Your task to perform on an android device: check the backup settings in the google photos Image 0: 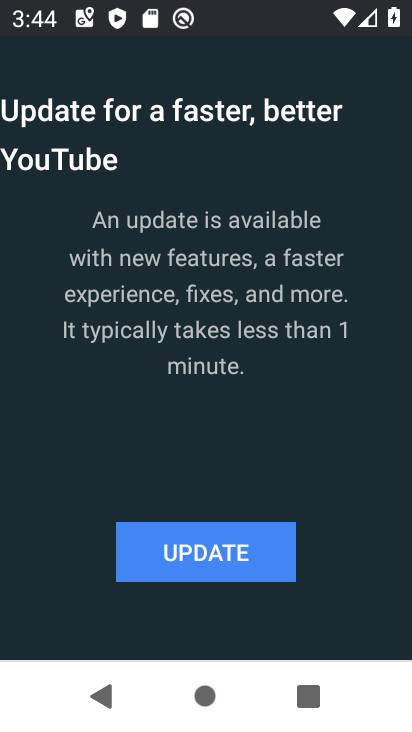
Step 0: press back button
Your task to perform on an android device: check the backup settings in the google photos Image 1: 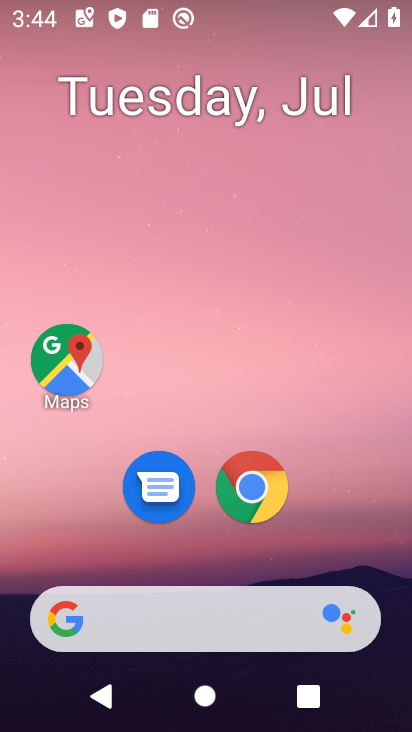
Step 1: drag from (188, 569) to (257, 9)
Your task to perform on an android device: check the backup settings in the google photos Image 2: 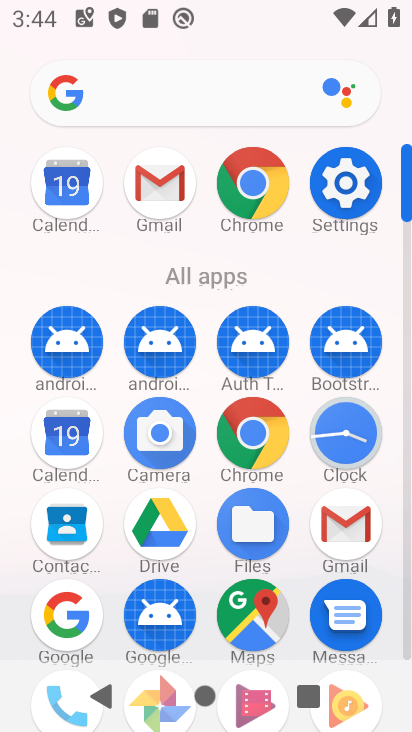
Step 2: drag from (158, 601) to (220, 142)
Your task to perform on an android device: check the backup settings in the google photos Image 3: 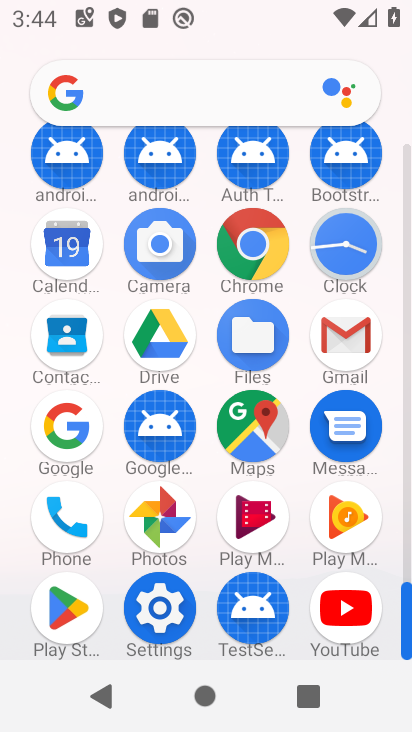
Step 3: click (156, 506)
Your task to perform on an android device: check the backup settings in the google photos Image 4: 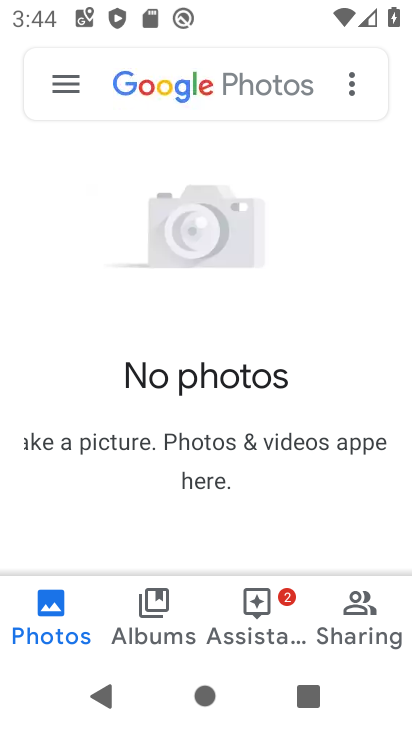
Step 4: click (69, 90)
Your task to perform on an android device: check the backup settings in the google photos Image 5: 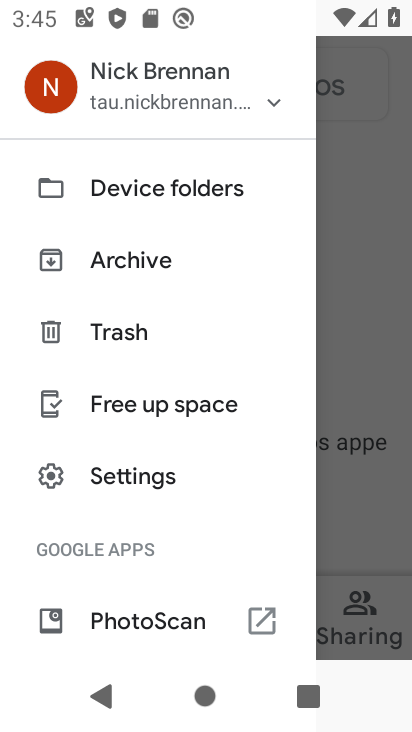
Step 5: click (130, 475)
Your task to perform on an android device: check the backup settings in the google photos Image 6: 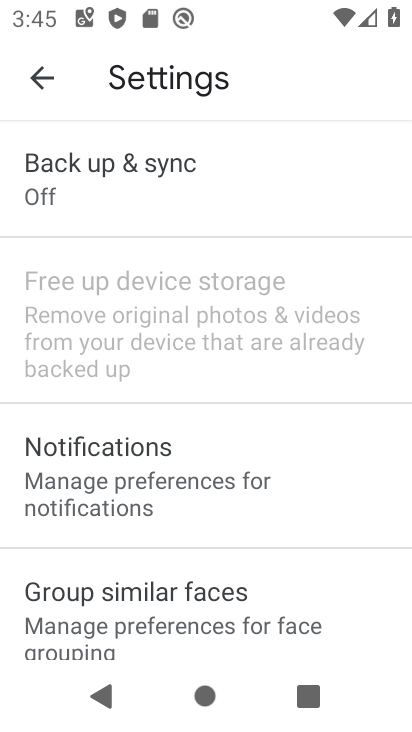
Step 6: click (157, 175)
Your task to perform on an android device: check the backup settings in the google photos Image 7: 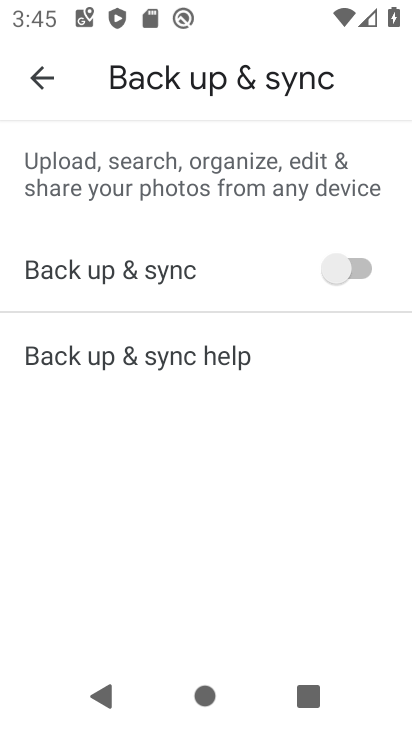
Step 7: task complete